Your task to perform on an android device: turn off location Image 0: 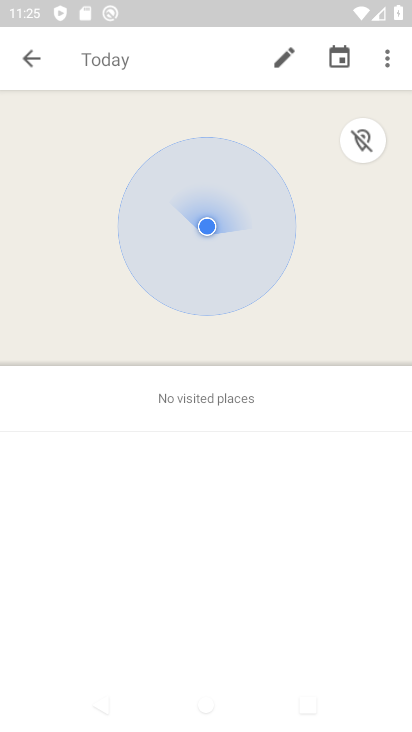
Step 0: press home button
Your task to perform on an android device: turn off location Image 1: 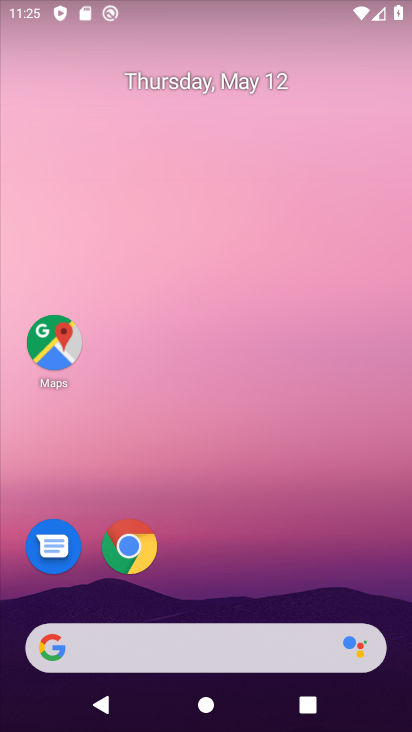
Step 1: drag from (226, 723) to (230, 73)
Your task to perform on an android device: turn off location Image 2: 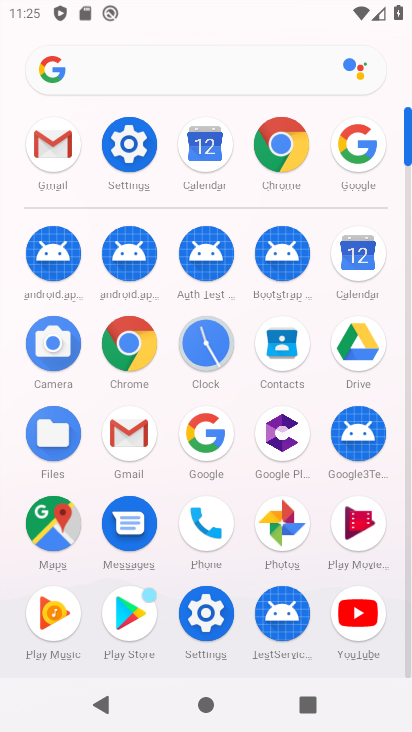
Step 2: click (127, 152)
Your task to perform on an android device: turn off location Image 3: 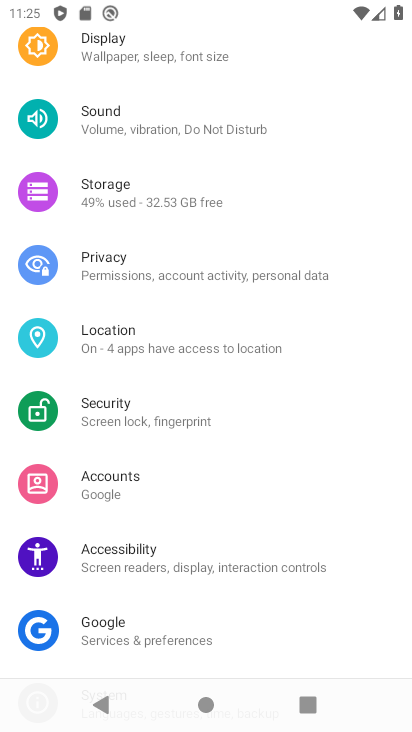
Step 3: drag from (193, 592) to (191, 147)
Your task to perform on an android device: turn off location Image 4: 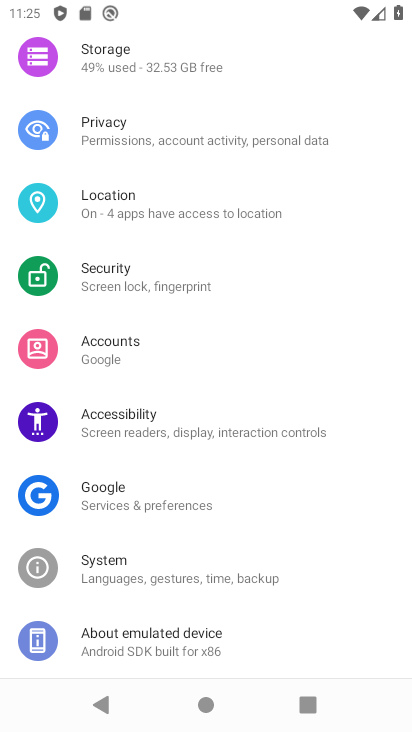
Step 4: click (111, 194)
Your task to perform on an android device: turn off location Image 5: 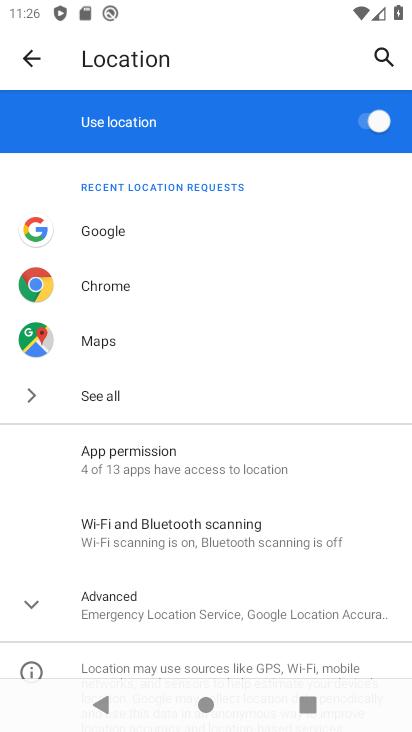
Step 5: click (362, 117)
Your task to perform on an android device: turn off location Image 6: 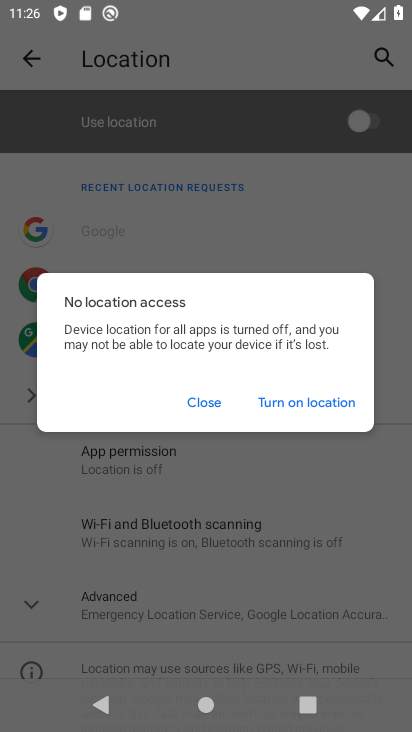
Step 6: click (205, 403)
Your task to perform on an android device: turn off location Image 7: 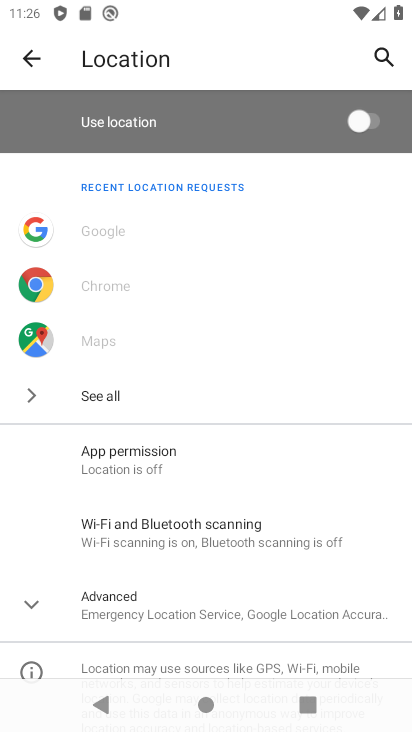
Step 7: task complete